Your task to perform on an android device: clear history in the chrome app Image 0: 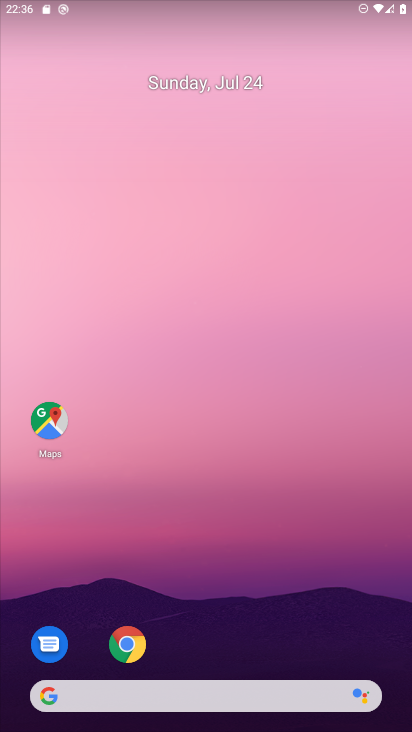
Step 0: click (126, 646)
Your task to perform on an android device: clear history in the chrome app Image 1: 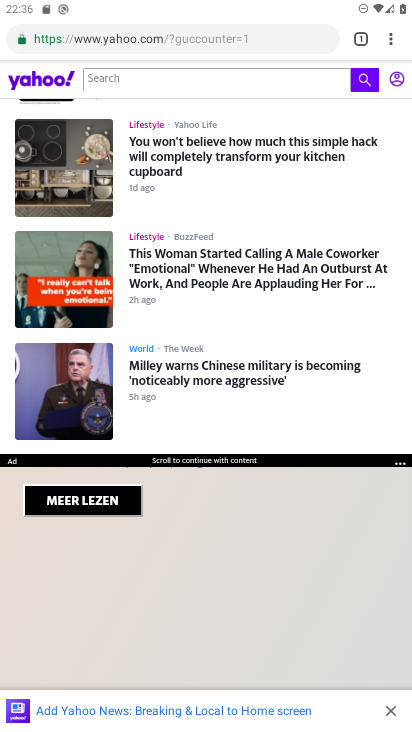
Step 1: click (391, 44)
Your task to perform on an android device: clear history in the chrome app Image 2: 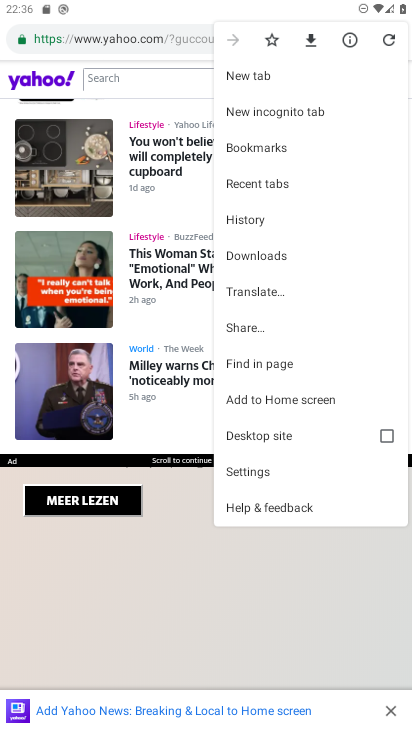
Step 2: click (243, 214)
Your task to perform on an android device: clear history in the chrome app Image 3: 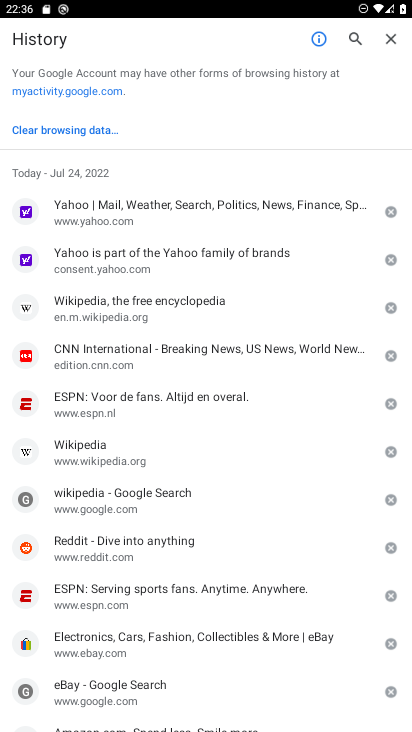
Step 3: click (67, 130)
Your task to perform on an android device: clear history in the chrome app Image 4: 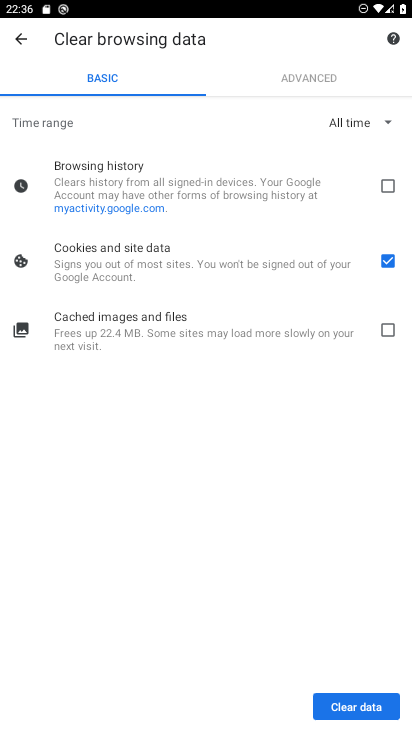
Step 4: click (388, 184)
Your task to perform on an android device: clear history in the chrome app Image 5: 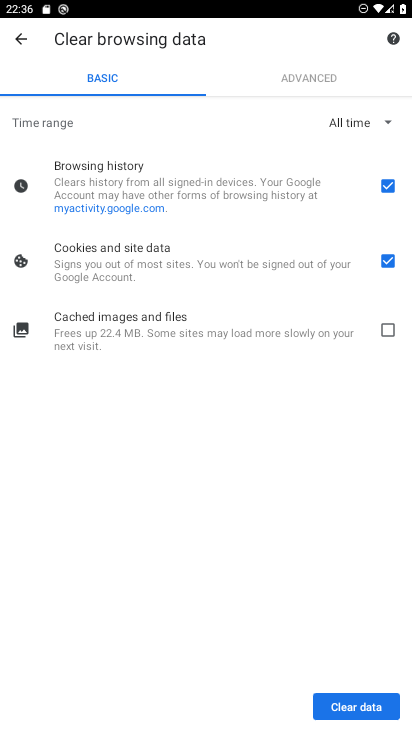
Step 5: click (386, 257)
Your task to perform on an android device: clear history in the chrome app Image 6: 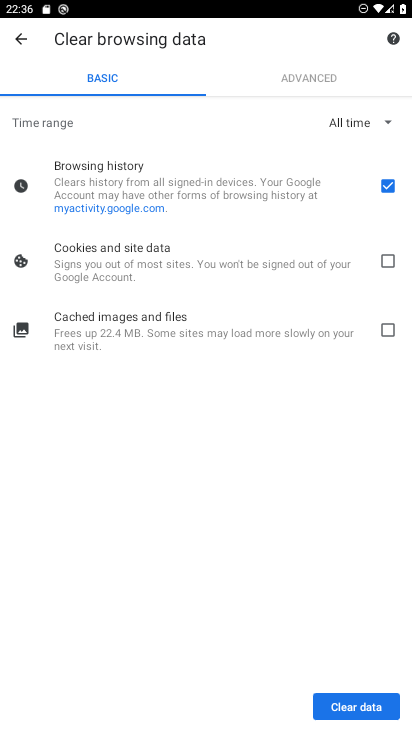
Step 6: click (356, 707)
Your task to perform on an android device: clear history in the chrome app Image 7: 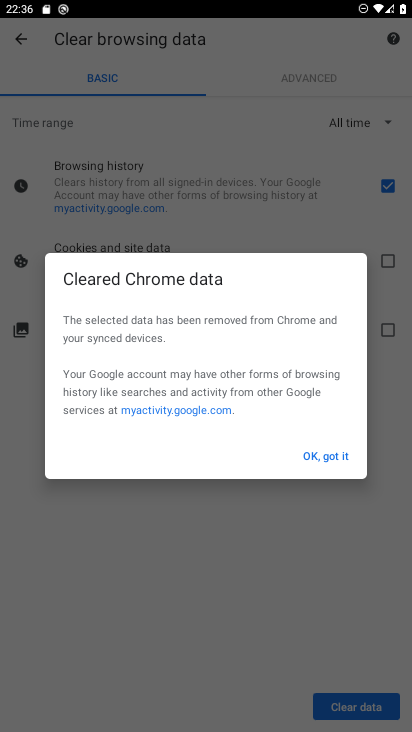
Step 7: click (322, 457)
Your task to perform on an android device: clear history in the chrome app Image 8: 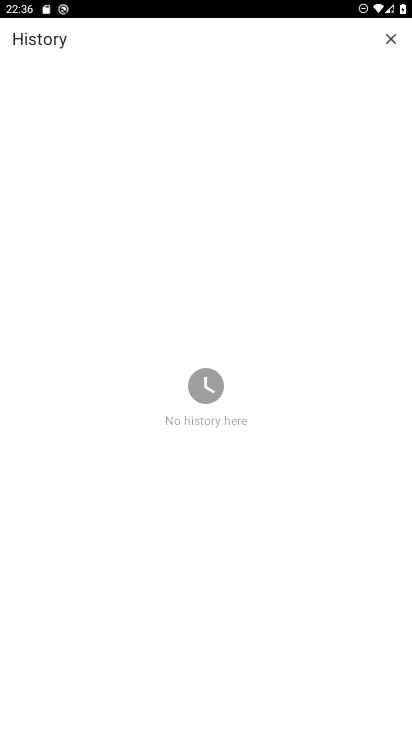
Step 8: task complete